Your task to perform on an android device: Open sound settings Image 0: 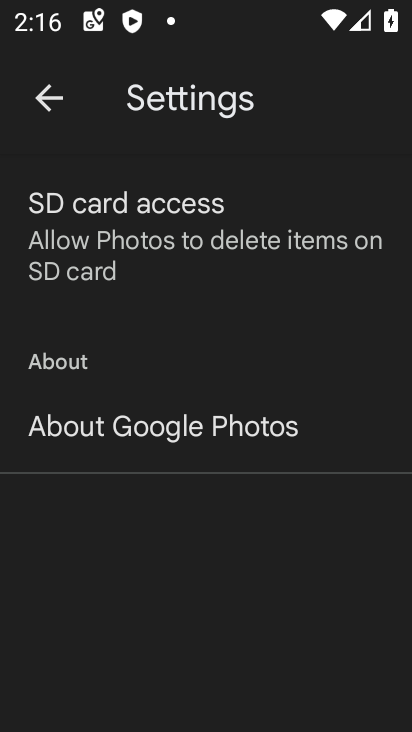
Step 0: press home button
Your task to perform on an android device: Open sound settings Image 1: 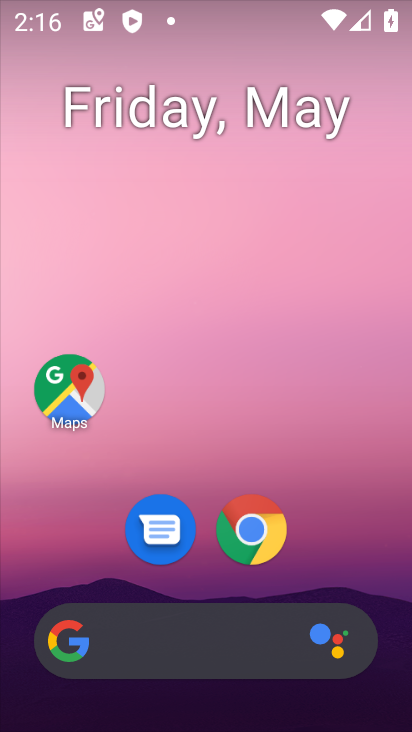
Step 1: drag from (380, 581) to (250, 140)
Your task to perform on an android device: Open sound settings Image 2: 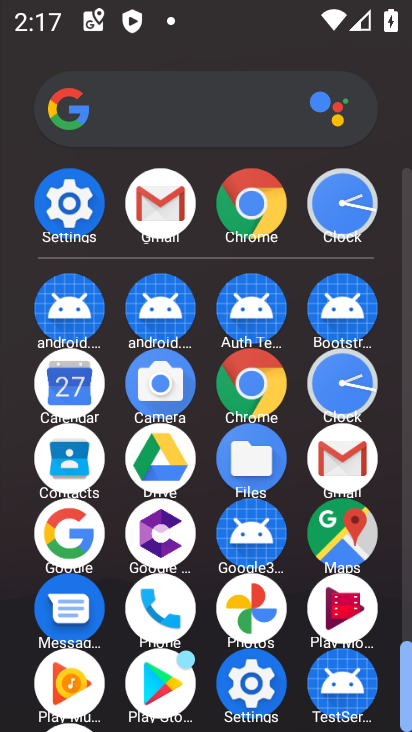
Step 2: click (70, 220)
Your task to perform on an android device: Open sound settings Image 3: 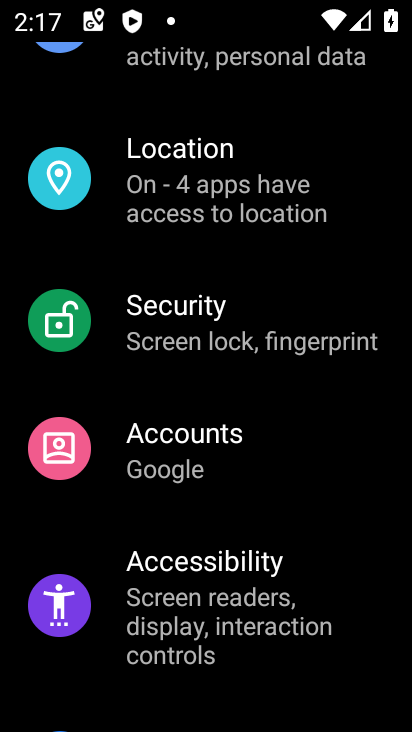
Step 3: drag from (197, 524) to (233, 32)
Your task to perform on an android device: Open sound settings Image 4: 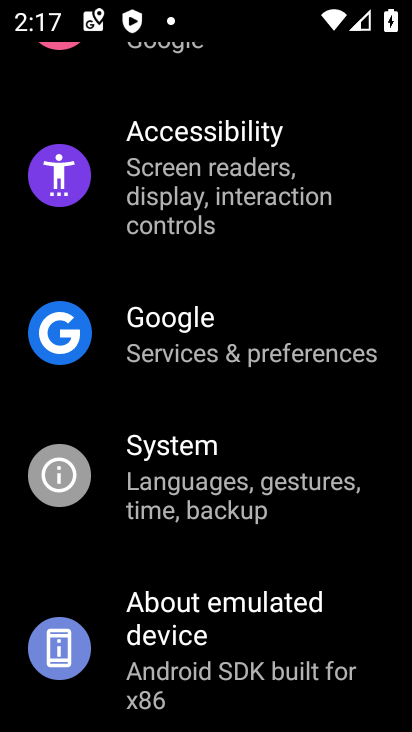
Step 4: drag from (197, 91) to (150, 543)
Your task to perform on an android device: Open sound settings Image 5: 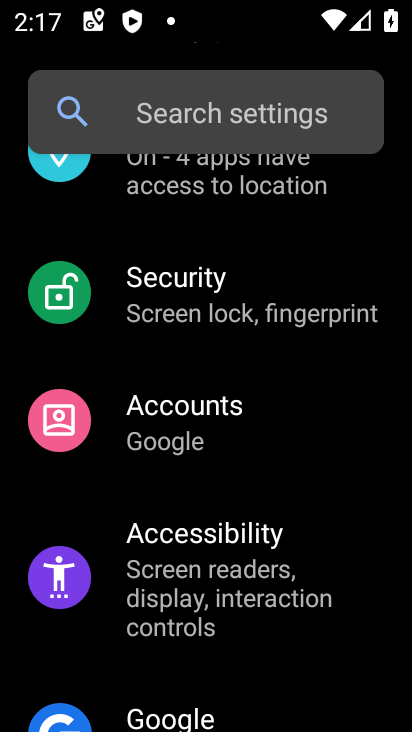
Step 5: drag from (153, 273) to (162, 587)
Your task to perform on an android device: Open sound settings Image 6: 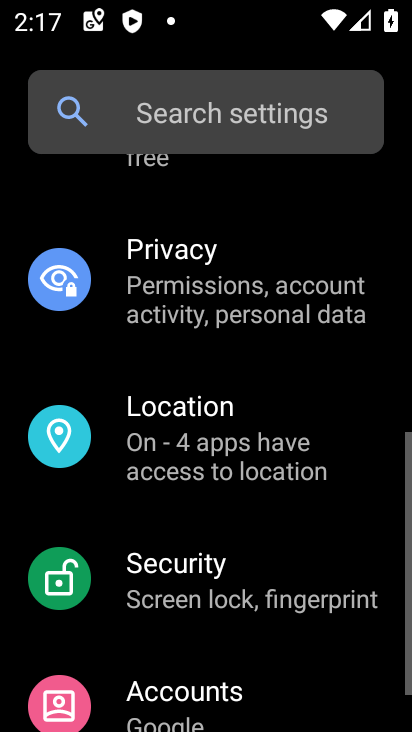
Step 6: click (162, 589)
Your task to perform on an android device: Open sound settings Image 7: 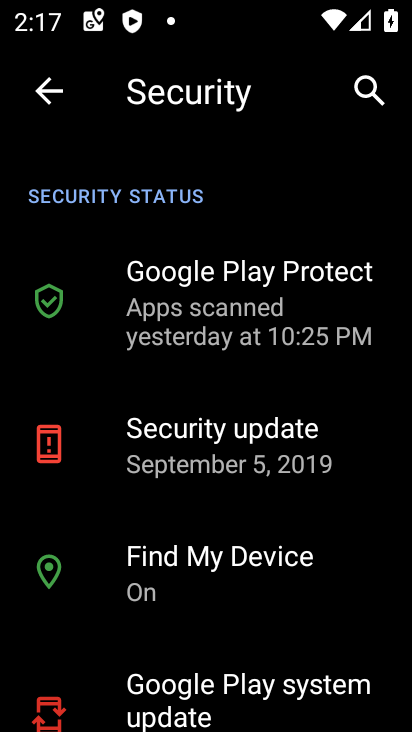
Step 7: click (44, 93)
Your task to perform on an android device: Open sound settings Image 8: 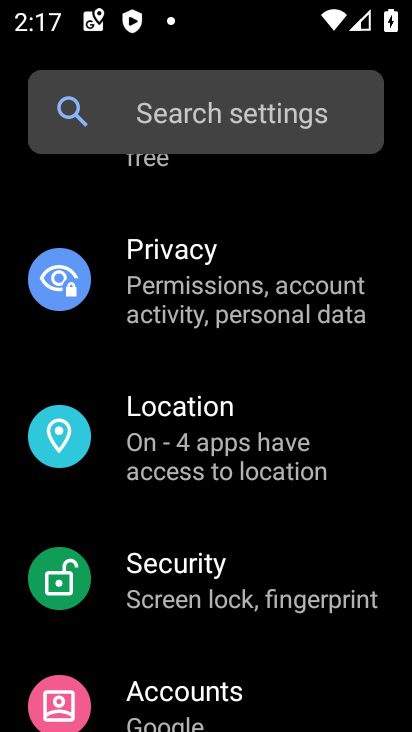
Step 8: drag from (227, 374) to (282, 690)
Your task to perform on an android device: Open sound settings Image 9: 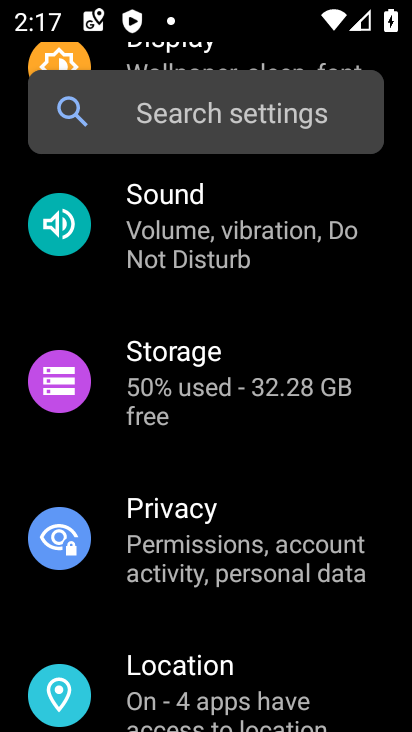
Step 9: click (138, 215)
Your task to perform on an android device: Open sound settings Image 10: 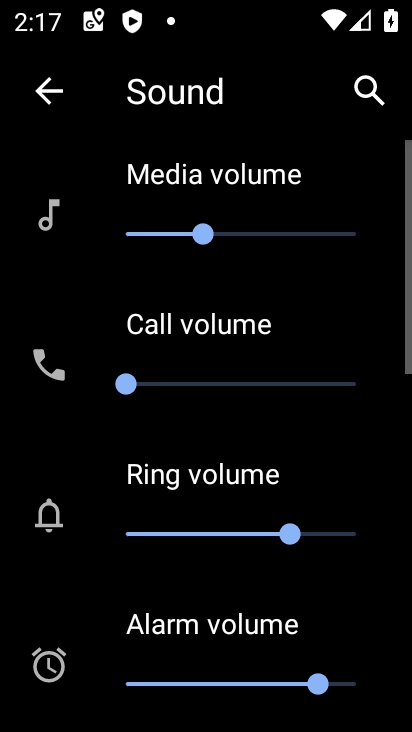
Step 10: task complete